Your task to perform on an android device: Open calendar and show me the first week of next month Image 0: 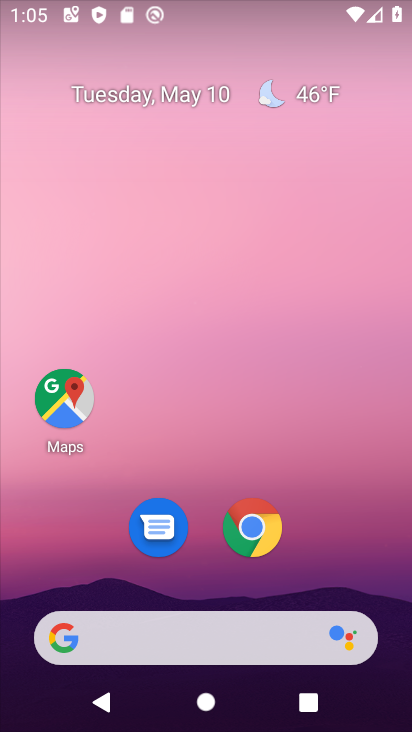
Step 0: drag from (347, 555) to (347, 12)
Your task to perform on an android device: Open calendar and show me the first week of next month Image 1: 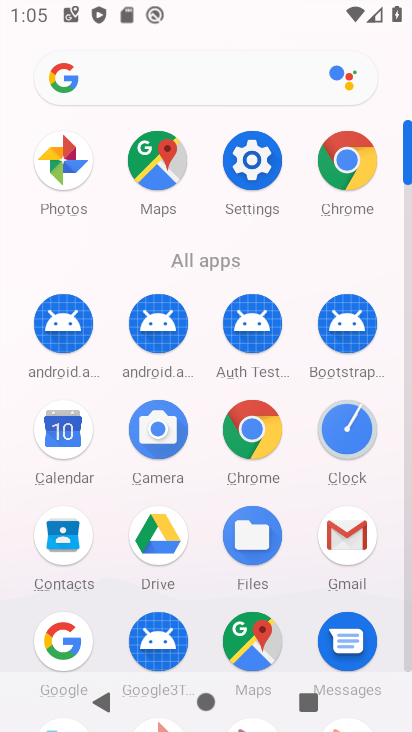
Step 1: click (61, 445)
Your task to perform on an android device: Open calendar and show me the first week of next month Image 2: 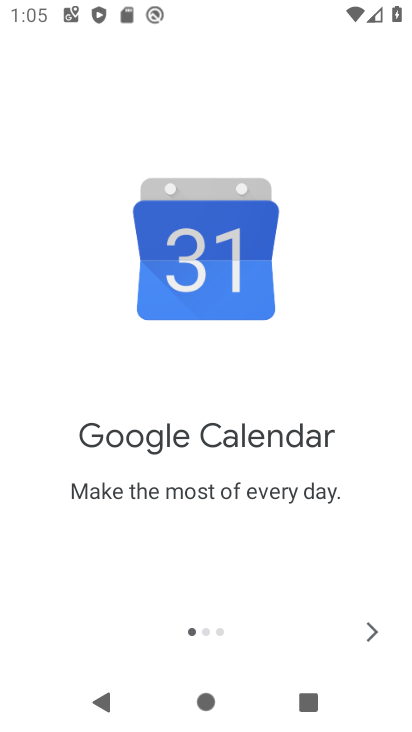
Step 2: click (367, 639)
Your task to perform on an android device: Open calendar and show me the first week of next month Image 3: 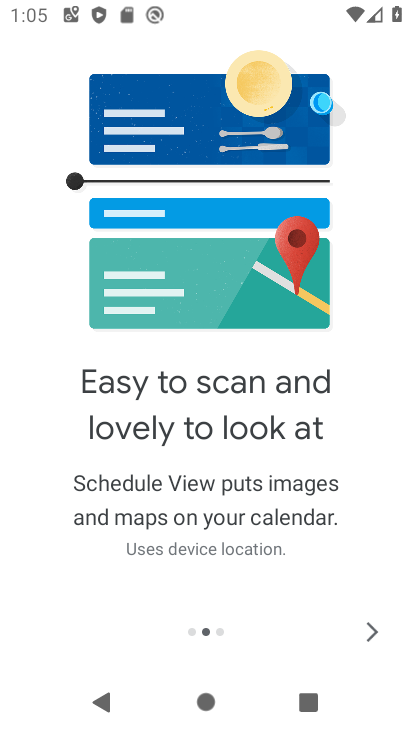
Step 3: click (367, 639)
Your task to perform on an android device: Open calendar and show me the first week of next month Image 4: 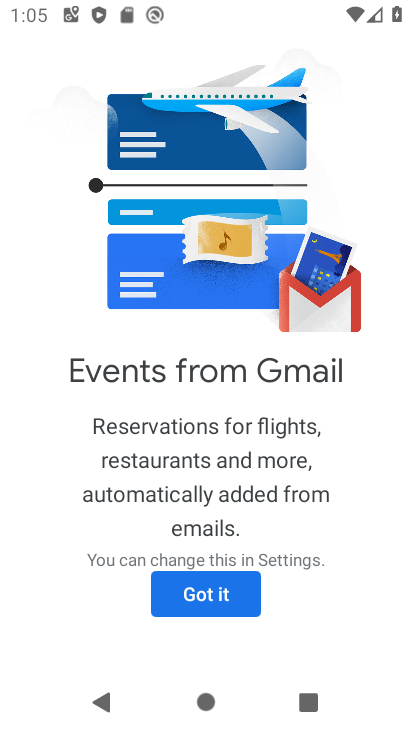
Step 4: click (211, 586)
Your task to perform on an android device: Open calendar and show me the first week of next month Image 5: 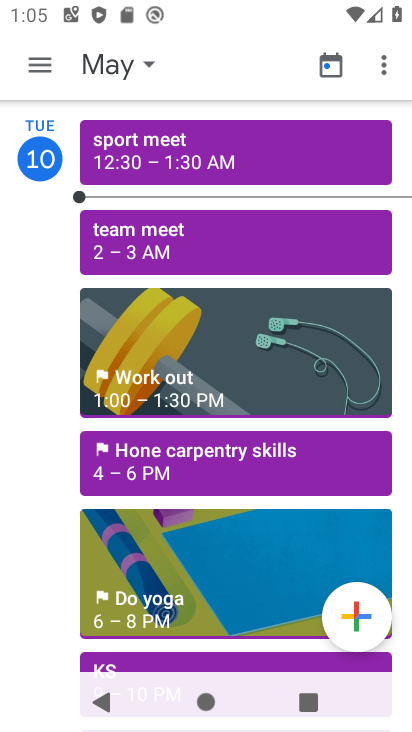
Step 5: click (142, 66)
Your task to perform on an android device: Open calendar and show me the first week of next month Image 6: 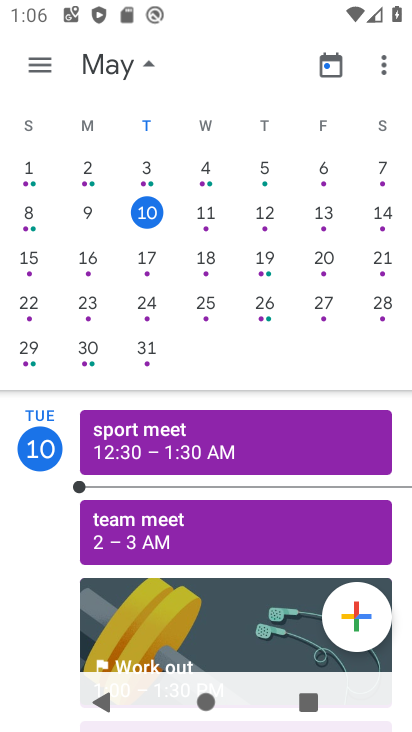
Step 6: drag from (372, 223) to (4, 718)
Your task to perform on an android device: Open calendar and show me the first week of next month Image 7: 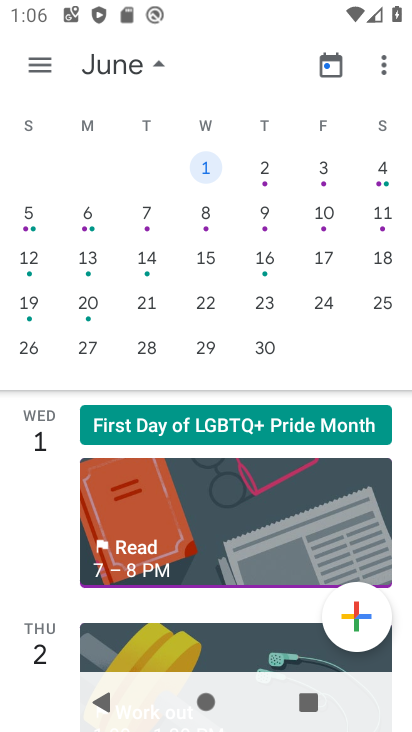
Step 7: click (37, 71)
Your task to perform on an android device: Open calendar and show me the first week of next month Image 8: 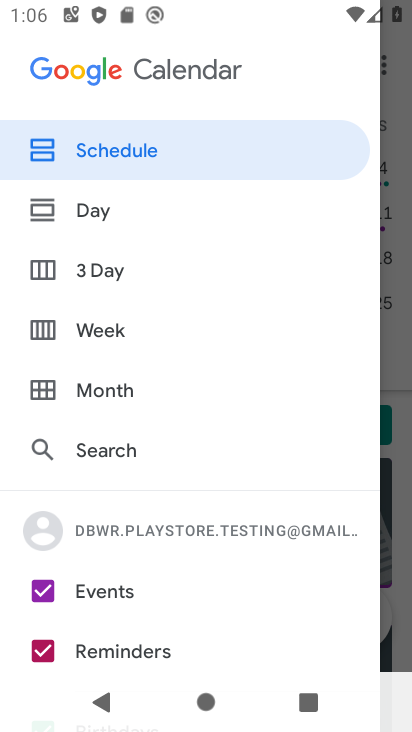
Step 8: click (97, 338)
Your task to perform on an android device: Open calendar and show me the first week of next month Image 9: 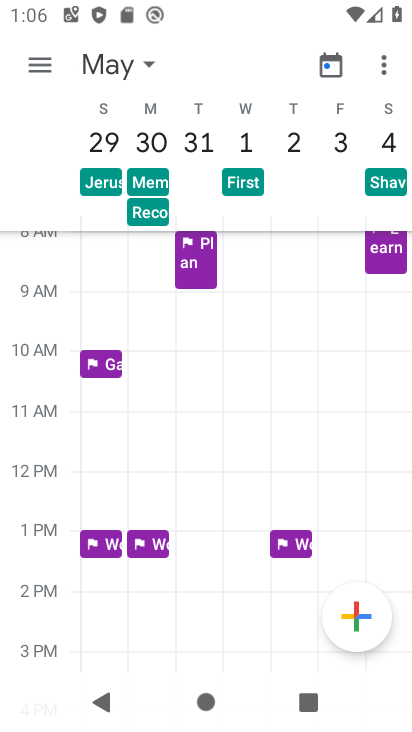
Step 9: task complete